Your task to perform on an android device: check the backup settings in the google photos Image 0: 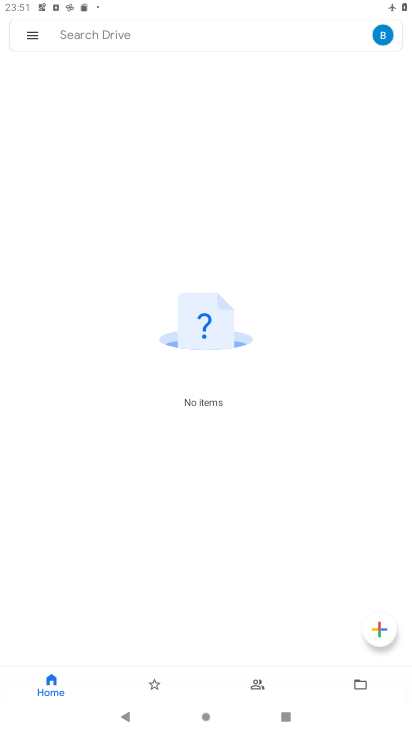
Step 0: press home button
Your task to perform on an android device: check the backup settings in the google photos Image 1: 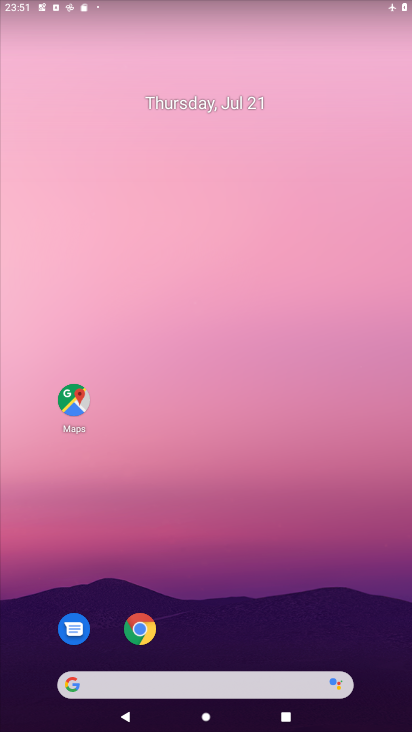
Step 1: drag from (259, 578) to (260, 61)
Your task to perform on an android device: check the backup settings in the google photos Image 2: 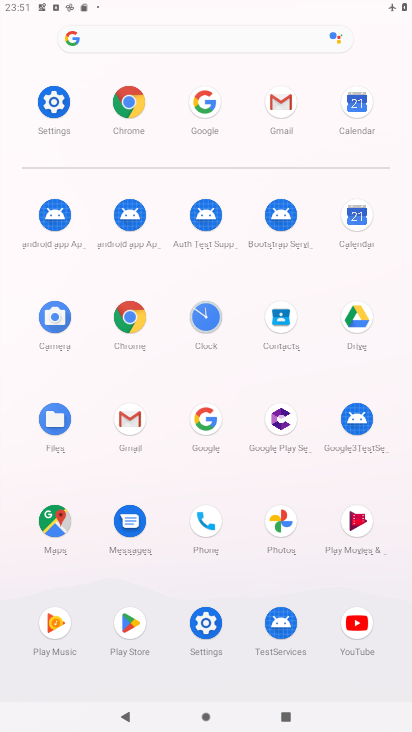
Step 2: click (273, 532)
Your task to perform on an android device: check the backup settings in the google photos Image 3: 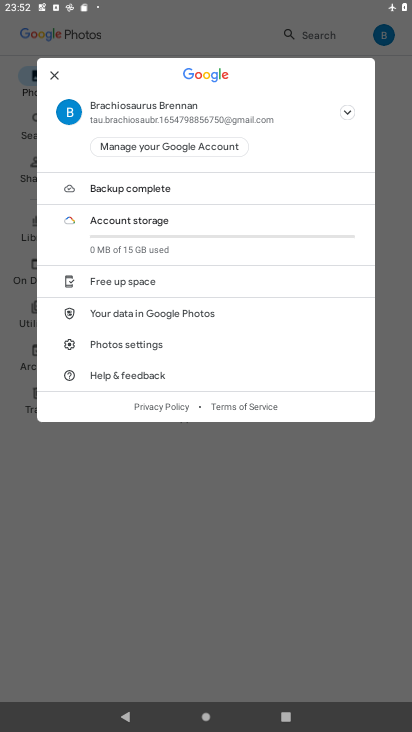
Step 3: click (161, 189)
Your task to perform on an android device: check the backup settings in the google photos Image 4: 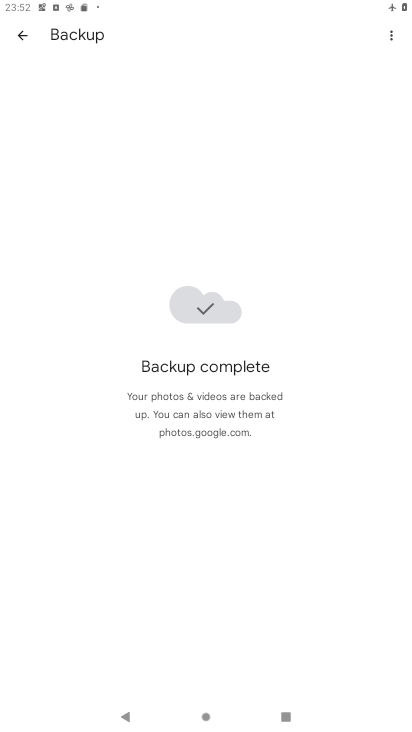
Step 4: click (137, 718)
Your task to perform on an android device: check the backup settings in the google photos Image 5: 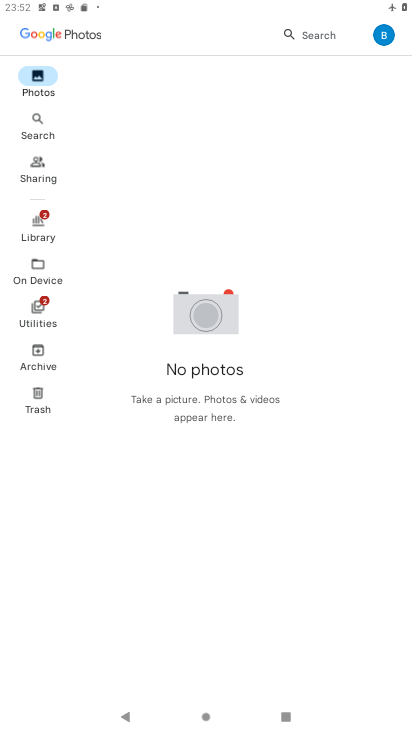
Step 5: click (385, 40)
Your task to perform on an android device: check the backup settings in the google photos Image 6: 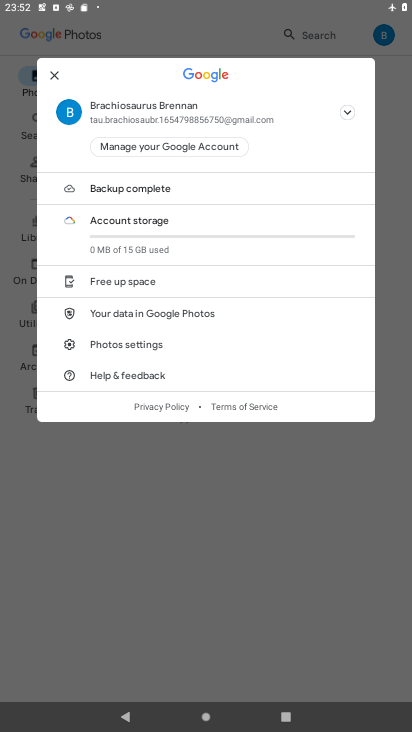
Step 6: click (171, 133)
Your task to perform on an android device: check the backup settings in the google photos Image 7: 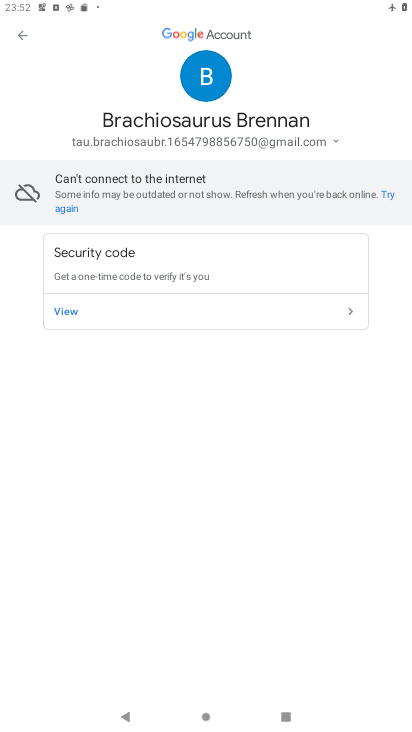
Step 7: task complete